Your task to perform on an android device: Go to Reddit.com Image 0: 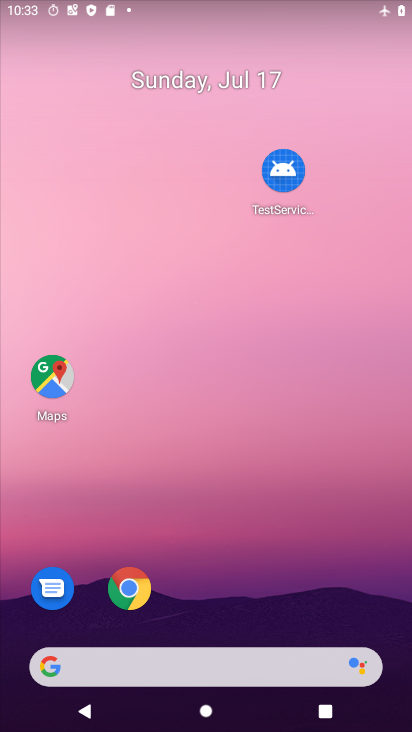
Step 0: drag from (256, 636) to (319, 183)
Your task to perform on an android device: Go to Reddit.com Image 1: 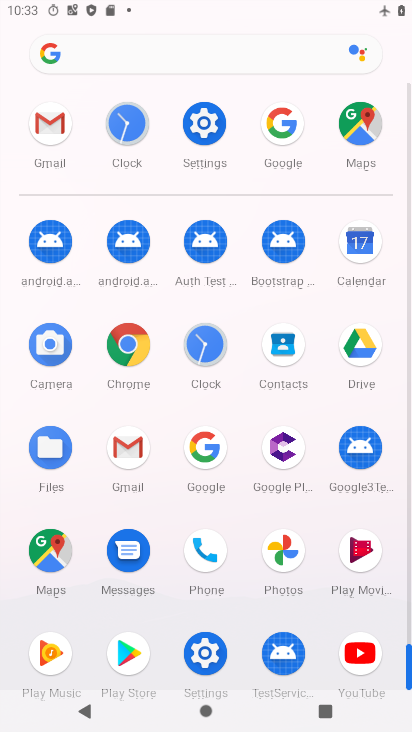
Step 1: click (148, 363)
Your task to perform on an android device: Go to Reddit.com Image 2: 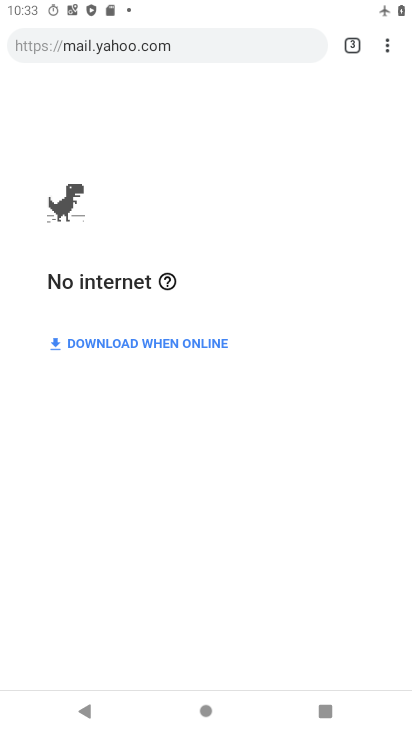
Step 2: click (216, 52)
Your task to perform on an android device: Go to Reddit.com Image 3: 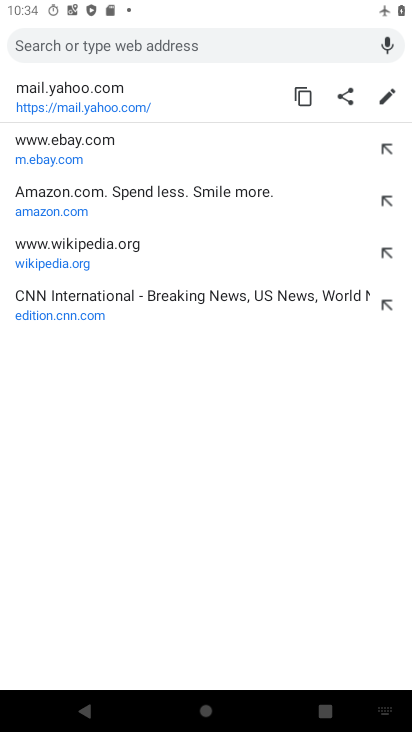
Step 3: type "reddit"
Your task to perform on an android device: Go to Reddit.com Image 4: 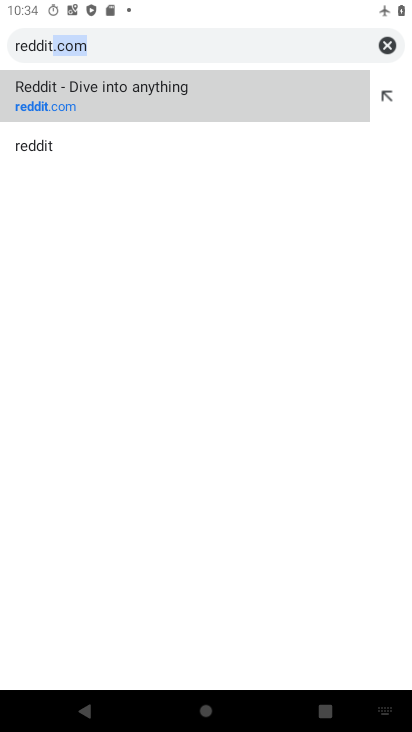
Step 4: click (124, 102)
Your task to perform on an android device: Go to Reddit.com Image 5: 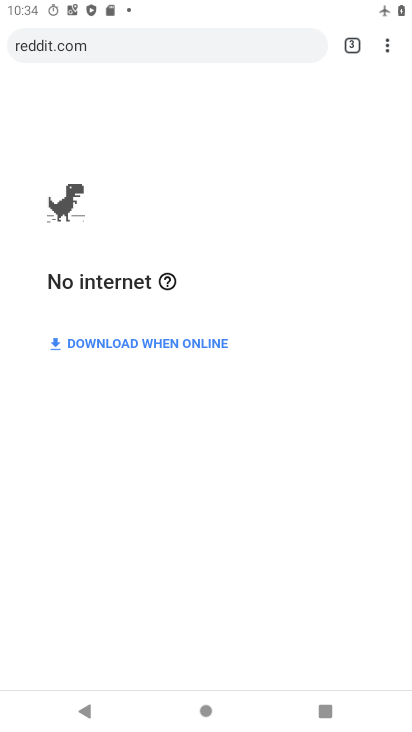
Step 5: task complete